Your task to perform on an android device: Open Google Chrome Image 0: 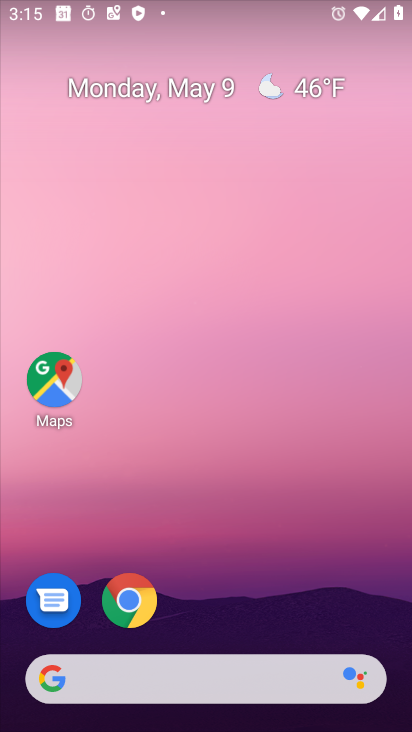
Step 0: click (136, 593)
Your task to perform on an android device: Open Google Chrome Image 1: 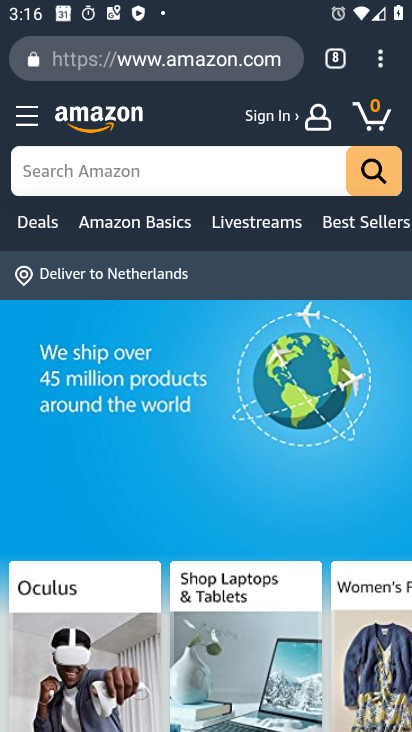
Step 1: task complete